Your task to perform on an android device: Search for vegetarian restaurants on Maps Image 0: 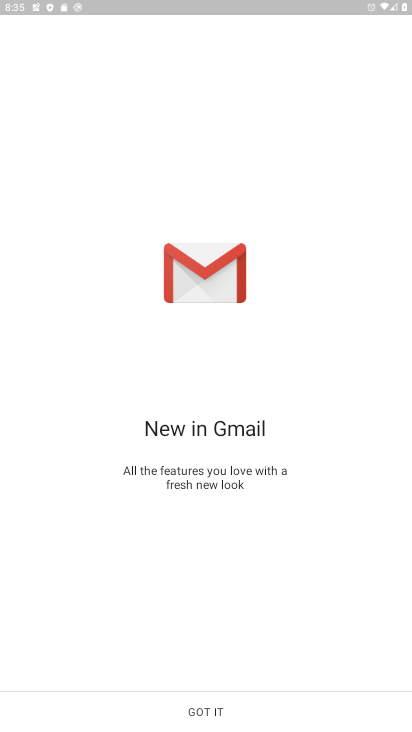
Step 0: press home button
Your task to perform on an android device: Search for vegetarian restaurants on Maps Image 1: 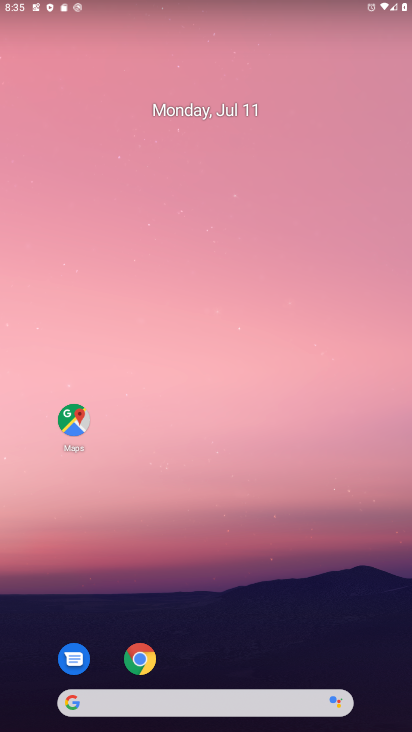
Step 1: click (70, 418)
Your task to perform on an android device: Search for vegetarian restaurants on Maps Image 2: 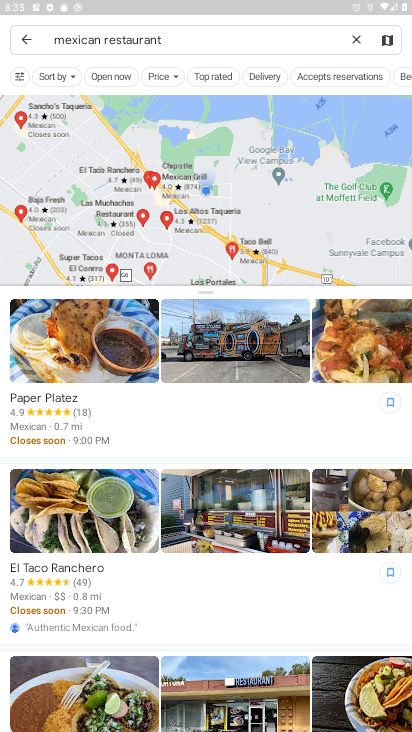
Step 2: click (359, 42)
Your task to perform on an android device: Search for vegetarian restaurants on Maps Image 3: 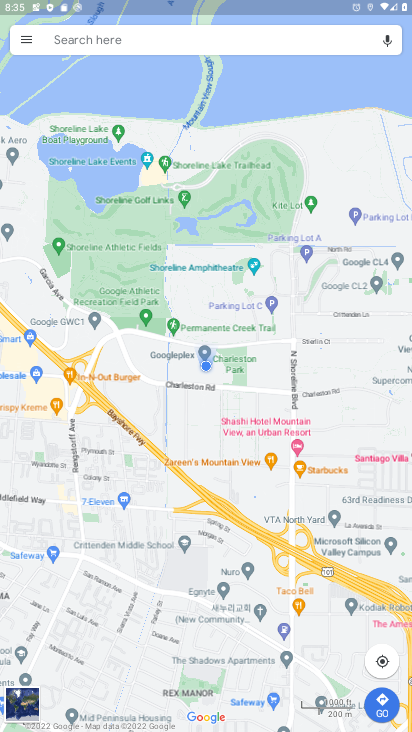
Step 3: click (195, 40)
Your task to perform on an android device: Search for vegetarian restaurants on Maps Image 4: 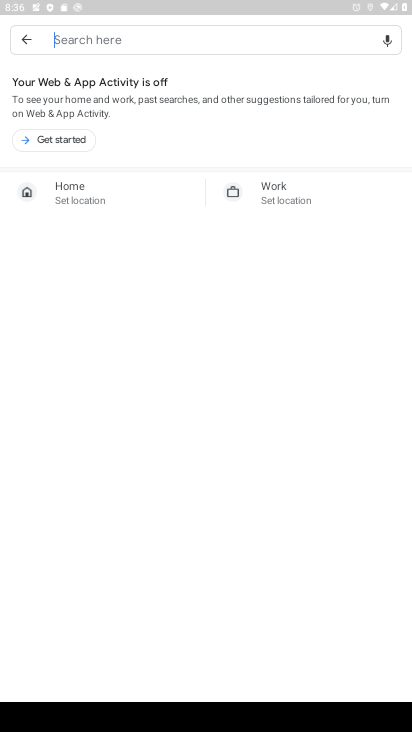
Step 4: type "vegetarian restaurants"
Your task to perform on an android device: Search for vegetarian restaurants on Maps Image 5: 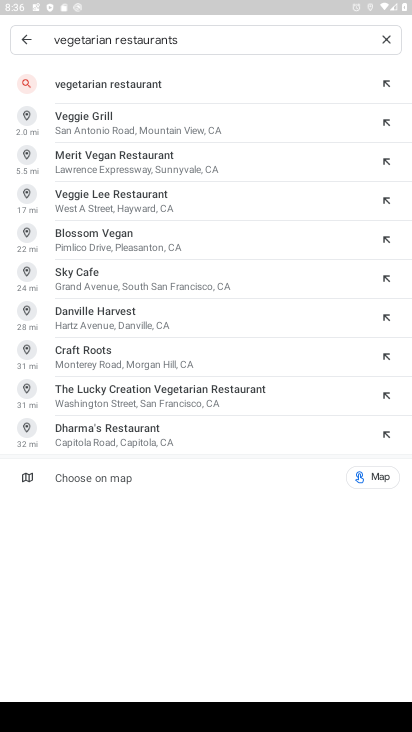
Step 5: click (153, 85)
Your task to perform on an android device: Search for vegetarian restaurants on Maps Image 6: 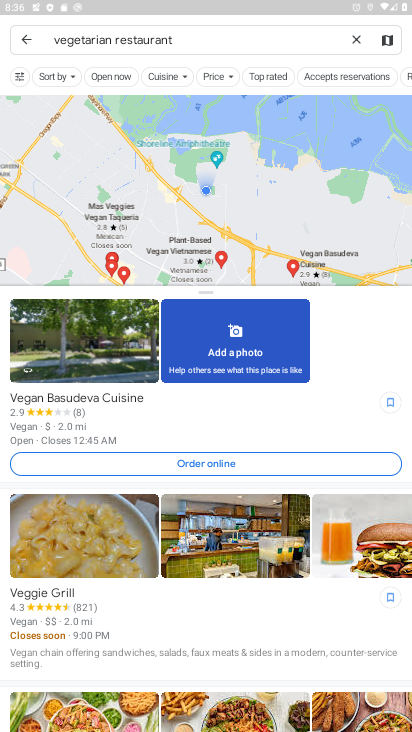
Step 6: task complete